Your task to perform on an android device: turn off smart reply in the gmail app Image 0: 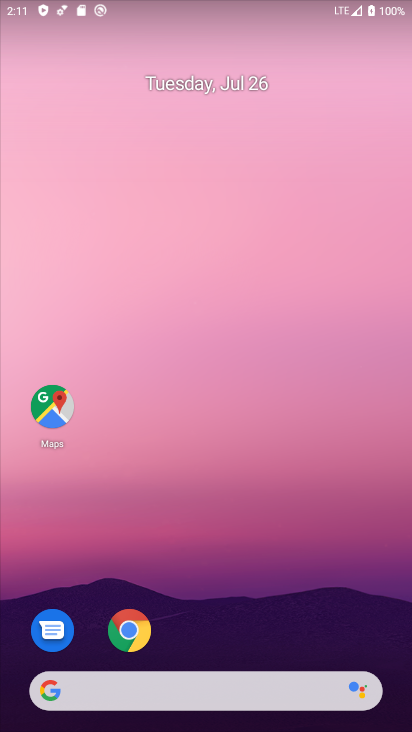
Step 0: drag from (251, 656) to (260, 150)
Your task to perform on an android device: turn off smart reply in the gmail app Image 1: 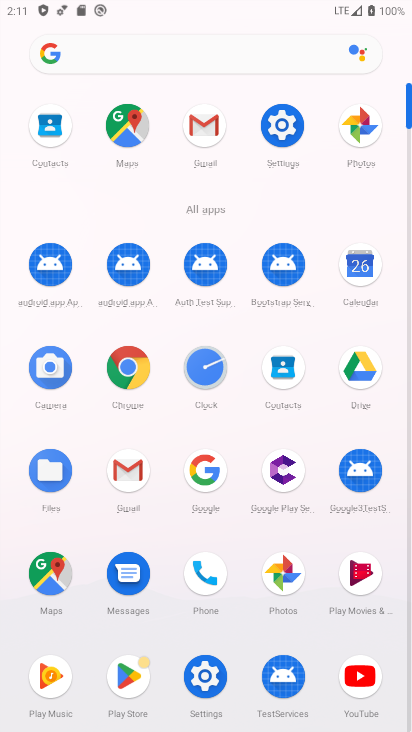
Step 1: click (125, 467)
Your task to perform on an android device: turn off smart reply in the gmail app Image 2: 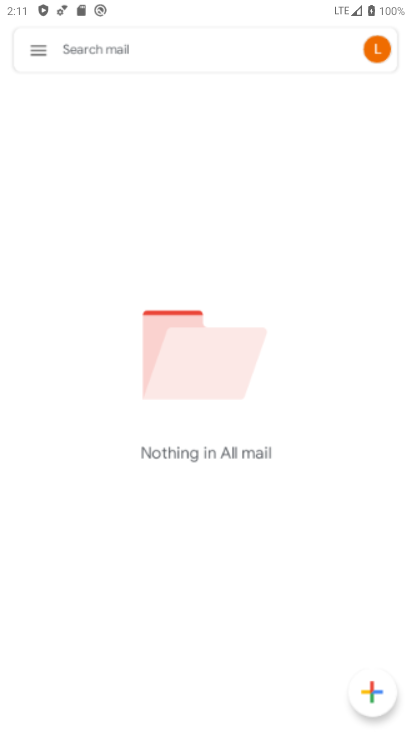
Step 2: click (130, 471)
Your task to perform on an android device: turn off smart reply in the gmail app Image 3: 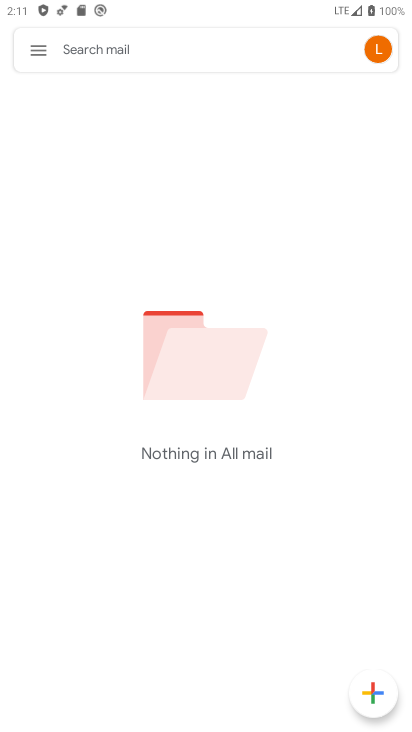
Step 3: click (129, 471)
Your task to perform on an android device: turn off smart reply in the gmail app Image 4: 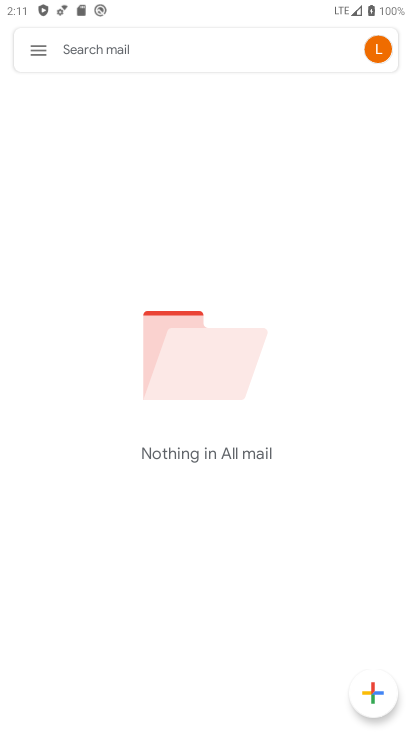
Step 4: click (45, 52)
Your task to perform on an android device: turn off smart reply in the gmail app Image 5: 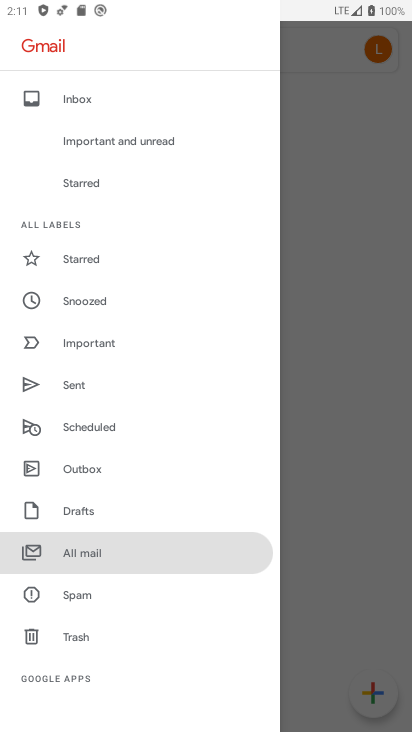
Step 5: drag from (127, 487) to (100, 168)
Your task to perform on an android device: turn off smart reply in the gmail app Image 6: 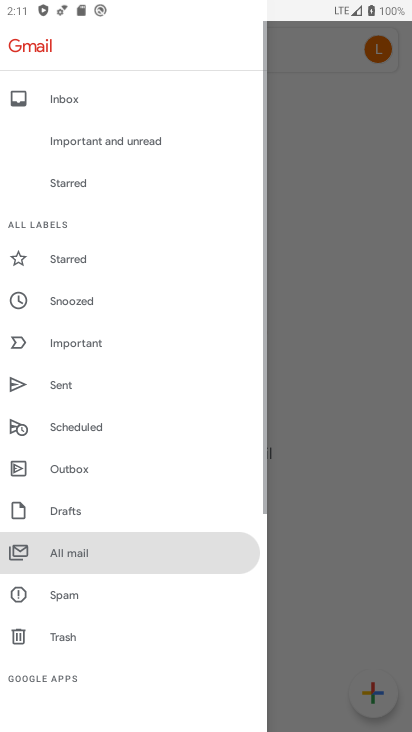
Step 6: drag from (152, 557) to (162, 298)
Your task to perform on an android device: turn off smart reply in the gmail app Image 7: 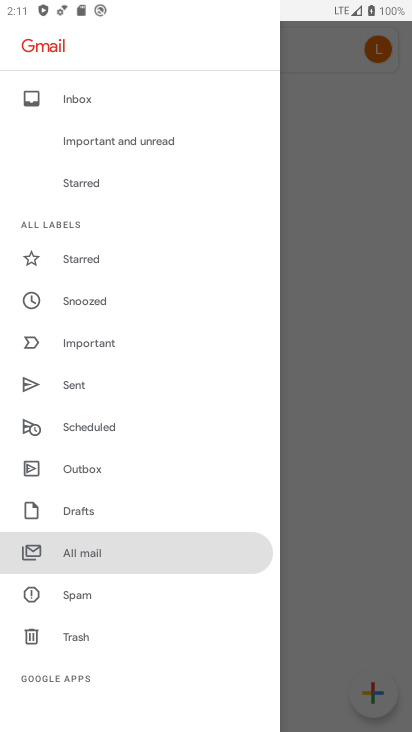
Step 7: drag from (109, 602) to (92, 318)
Your task to perform on an android device: turn off smart reply in the gmail app Image 8: 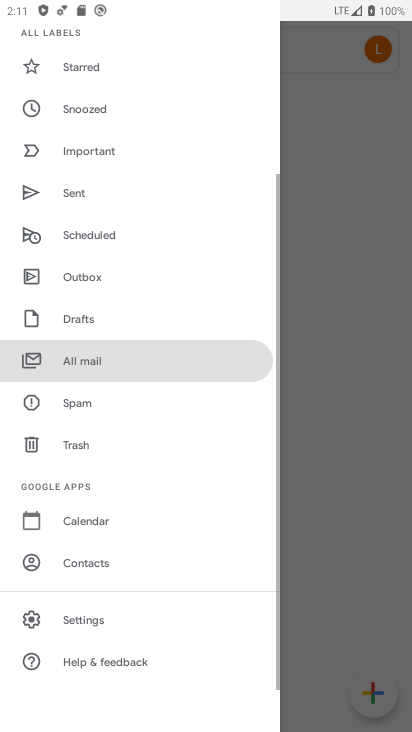
Step 8: click (84, 610)
Your task to perform on an android device: turn off smart reply in the gmail app Image 9: 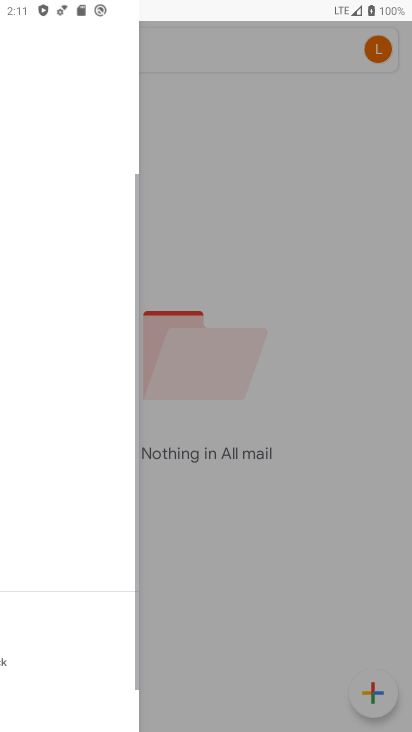
Step 9: click (89, 614)
Your task to perform on an android device: turn off smart reply in the gmail app Image 10: 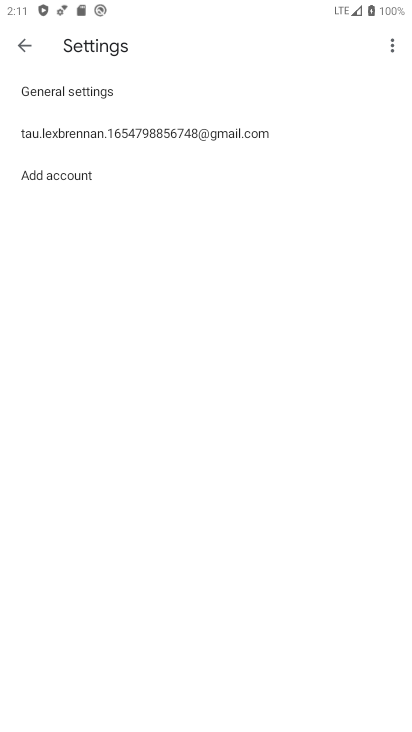
Step 10: click (96, 136)
Your task to perform on an android device: turn off smart reply in the gmail app Image 11: 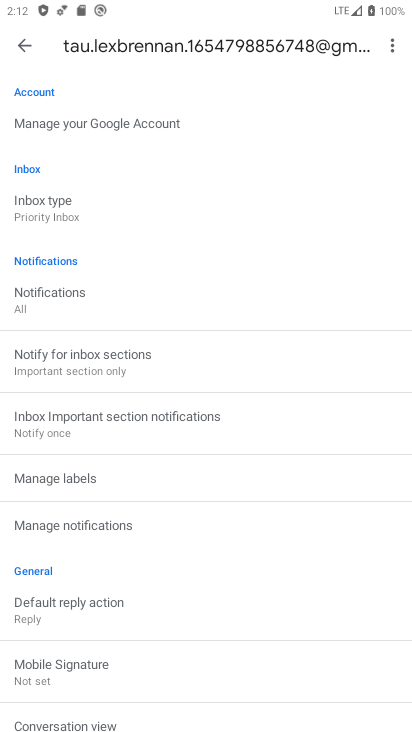
Step 11: drag from (18, 215) to (65, 497)
Your task to perform on an android device: turn off smart reply in the gmail app Image 12: 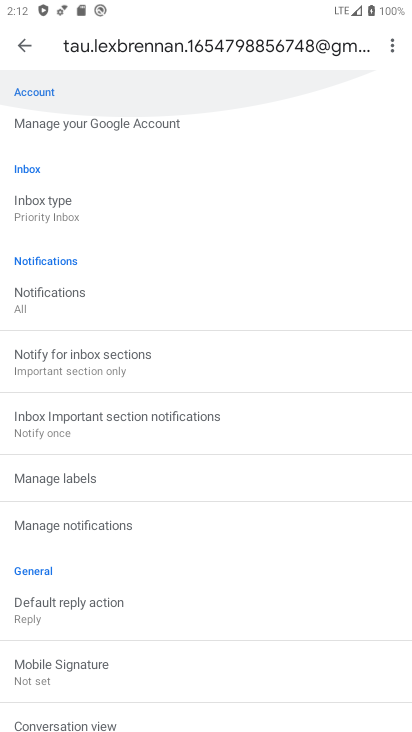
Step 12: drag from (77, 242) to (103, 558)
Your task to perform on an android device: turn off smart reply in the gmail app Image 13: 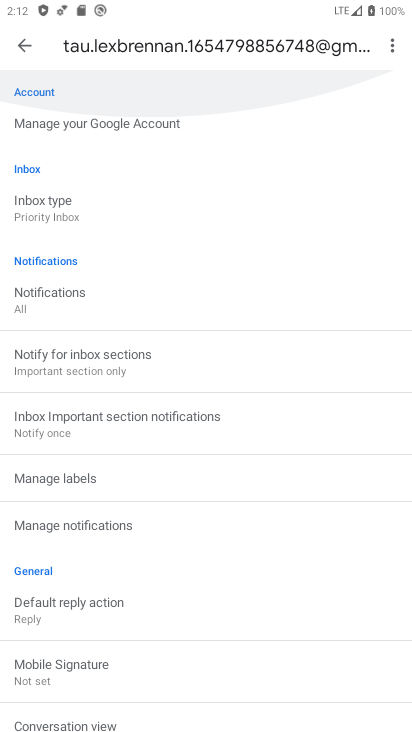
Step 13: drag from (124, 242) to (96, 619)
Your task to perform on an android device: turn off smart reply in the gmail app Image 14: 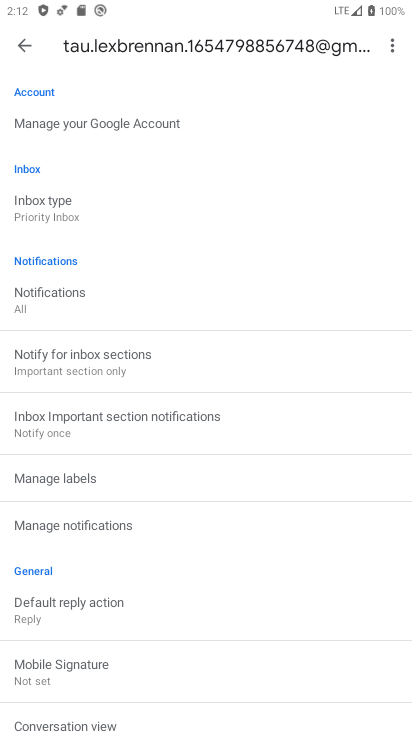
Step 14: drag from (101, 632) to (140, 305)
Your task to perform on an android device: turn off smart reply in the gmail app Image 15: 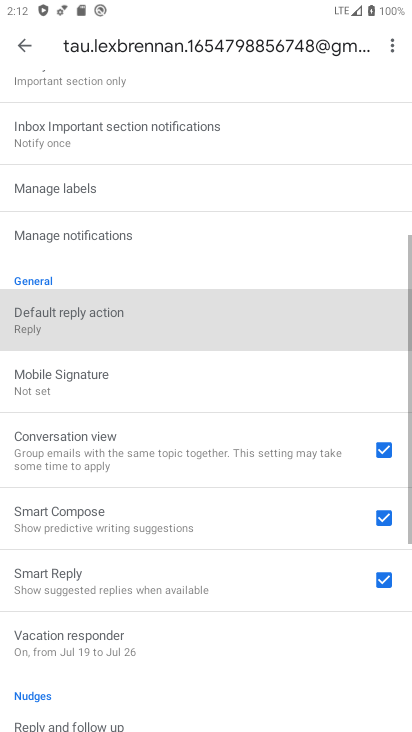
Step 15: drag from (132, 567) to (119, 371)
Your task to perform on an android device: turn off smart reply in the gmail app Image 16: 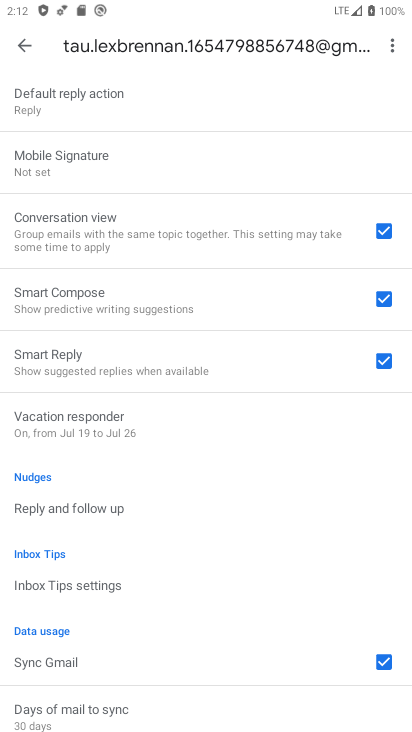
Step 16: click (382, 350)
Your task to perform on an android device: turn off smart reply in the gmail app Image 17: 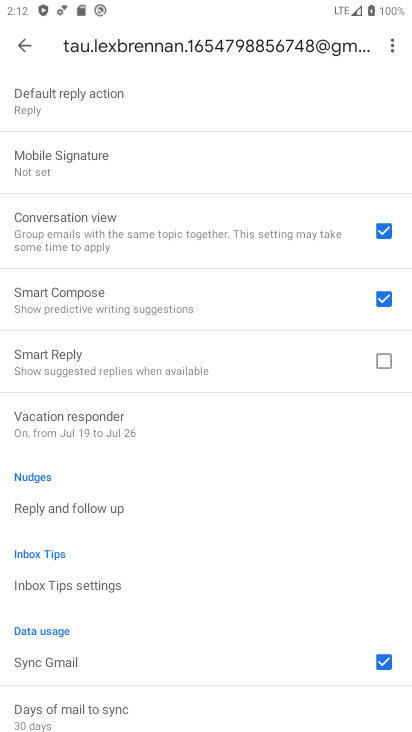
Step 17: task complete